Your task to perform on an android device: Open calendar and show me the second week of next month Image 0: 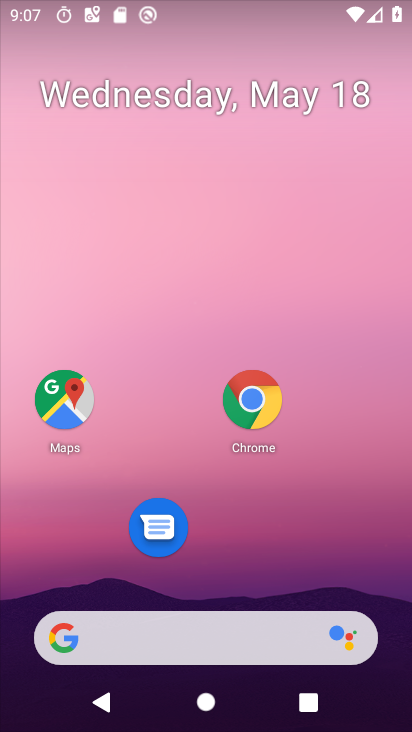
Step 0: drag from (290, 565) to (297, 7)
Your task to perform on an android device: Open calendar and show me the second week of next month Image 1: 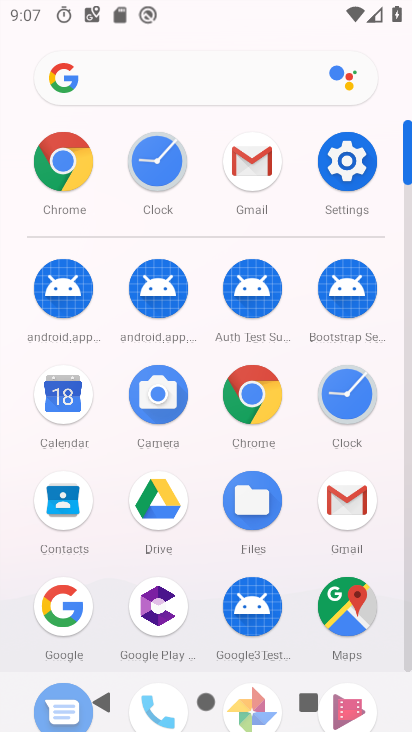
Step 1: click (53, 406)
Your task to perform on an android device: Open calendar and show me the second week of next month Image 2: 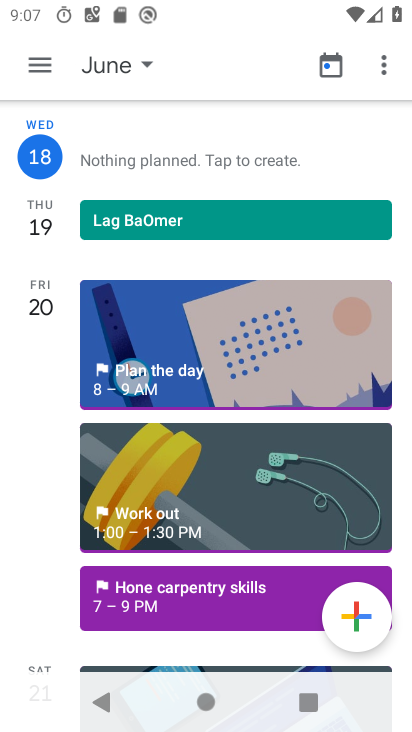
Step 2: click (40, 70)
Your task to perform on an android device: Open calendar and show me the second week of next month Image 3: 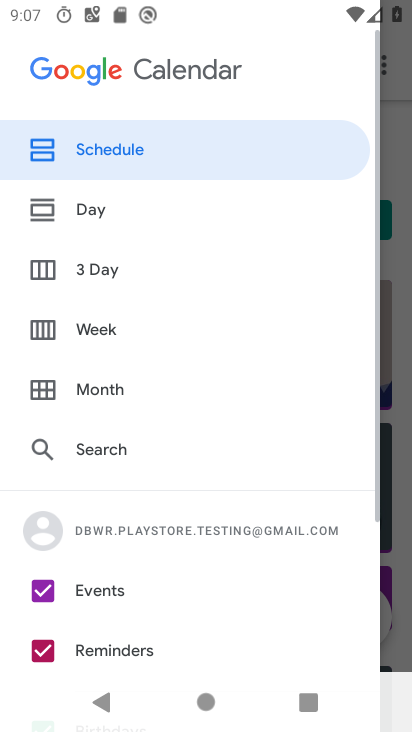
Step 3: click (97, 328)
Your task to perform on an android device: Open calendar and show me the second week of next month Image 4: 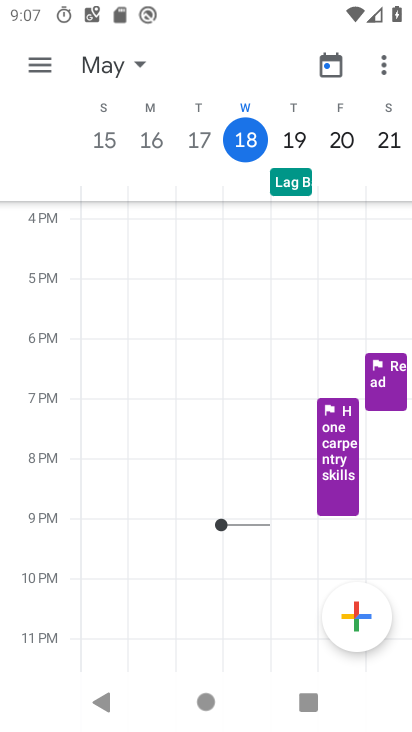
Step 4: click (109, 73)
Your task to perform on an android device: Open calendar and show me the second week of next month Image 5: 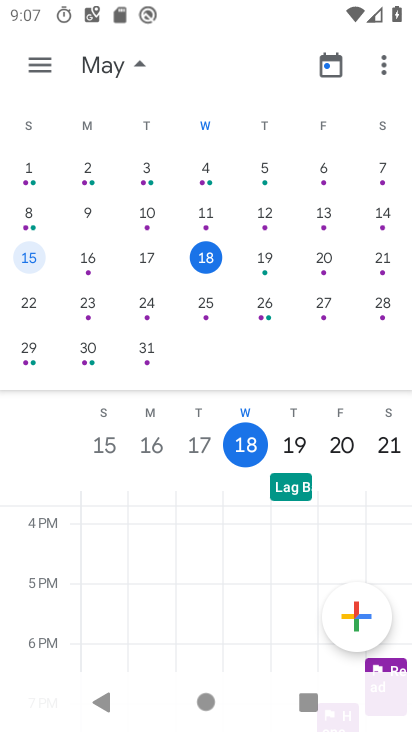
Step 5: drag from (350, 264) to (37, 211)
Your task to perform on an android device: Open calendar and show me the second week of next month Image 6: 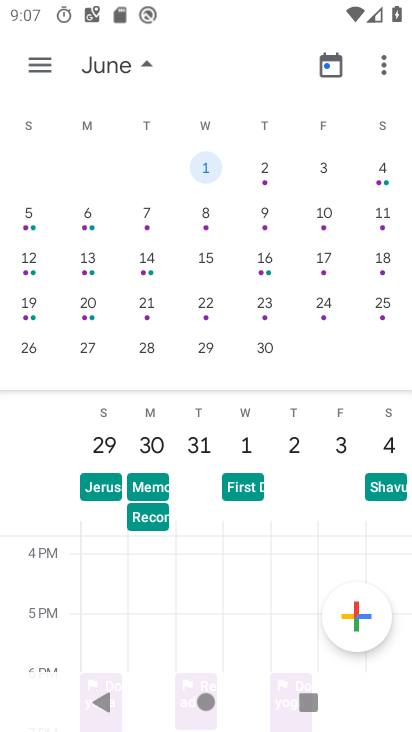
Step 6: click (34, 265)
Your task to perform on an android device: Open calendar and show me the second week of next month Image 7: 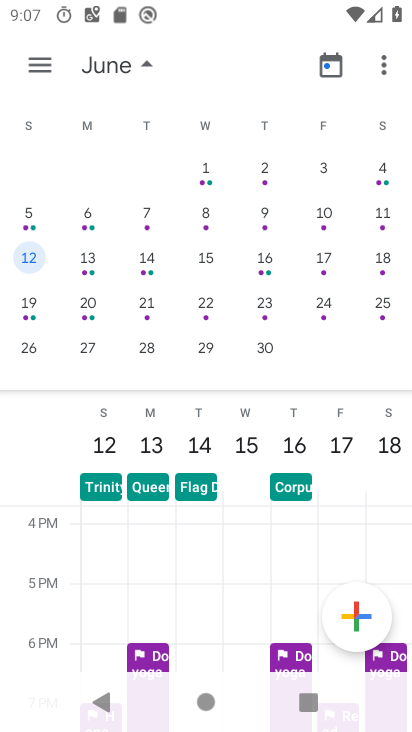
Step 7: task complete